Your task to perform on an android device: Play the new Justin Bieber video on YouTube Image 0: 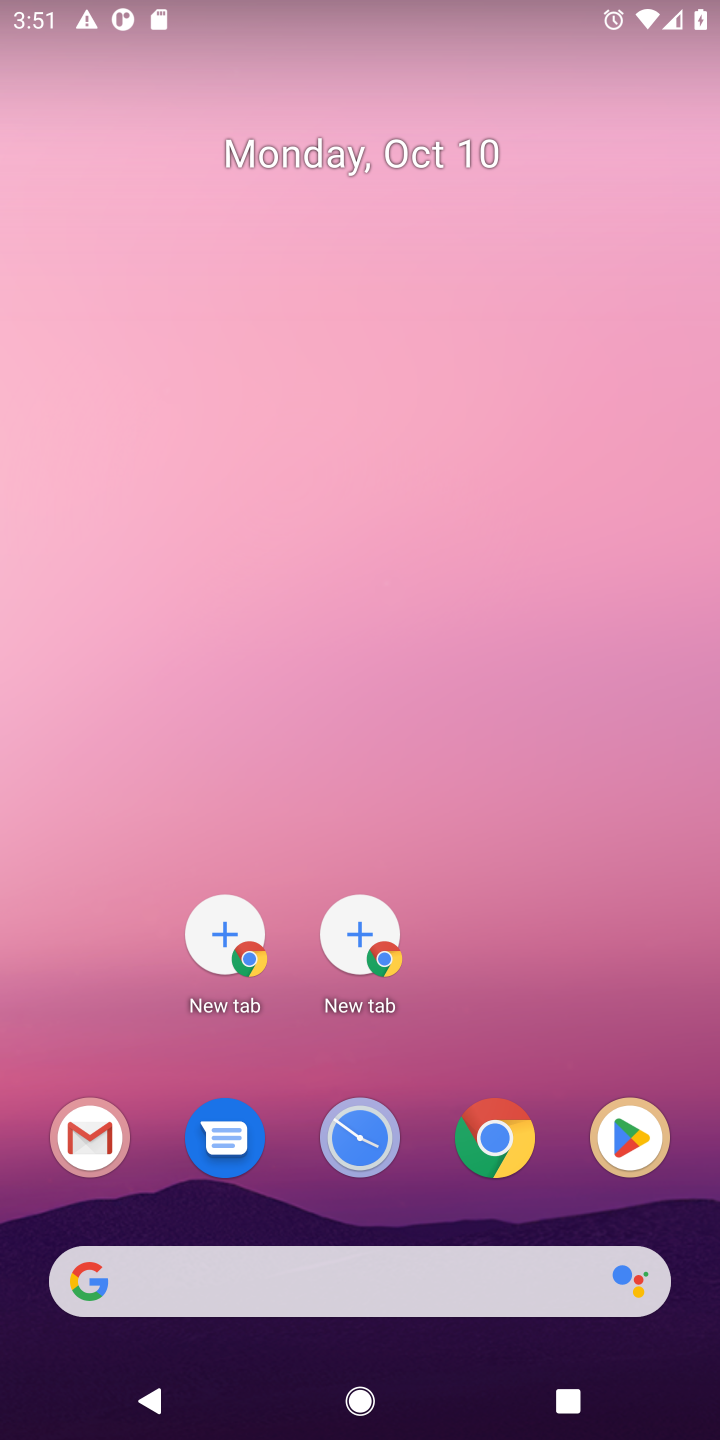
Step 0: click (510, 1162)
Your task to perform on an android device: Play the new Justin Bieber video on YouTube Image 1: 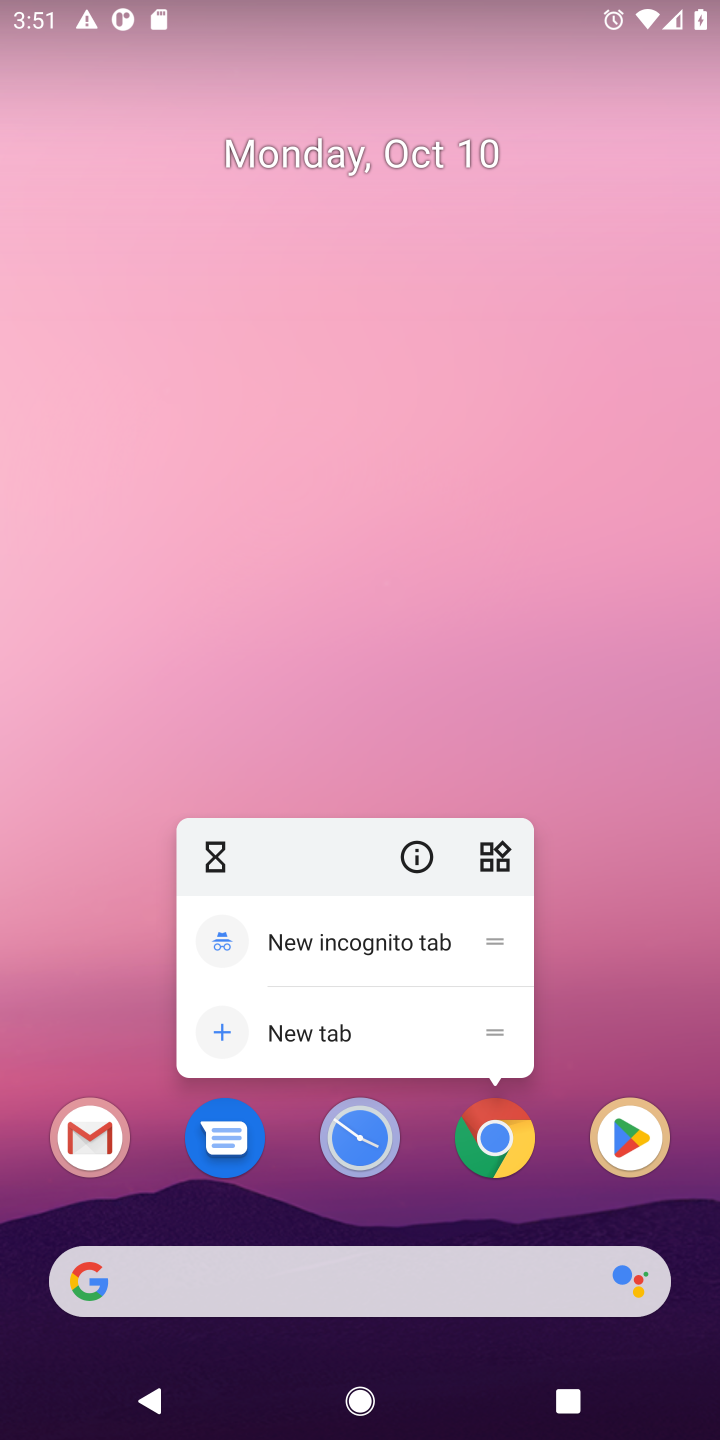
Step 1: click (500, 1115)
Your task to perform on an android device: Play the new Justin Bieber video on YouTube Image 2: 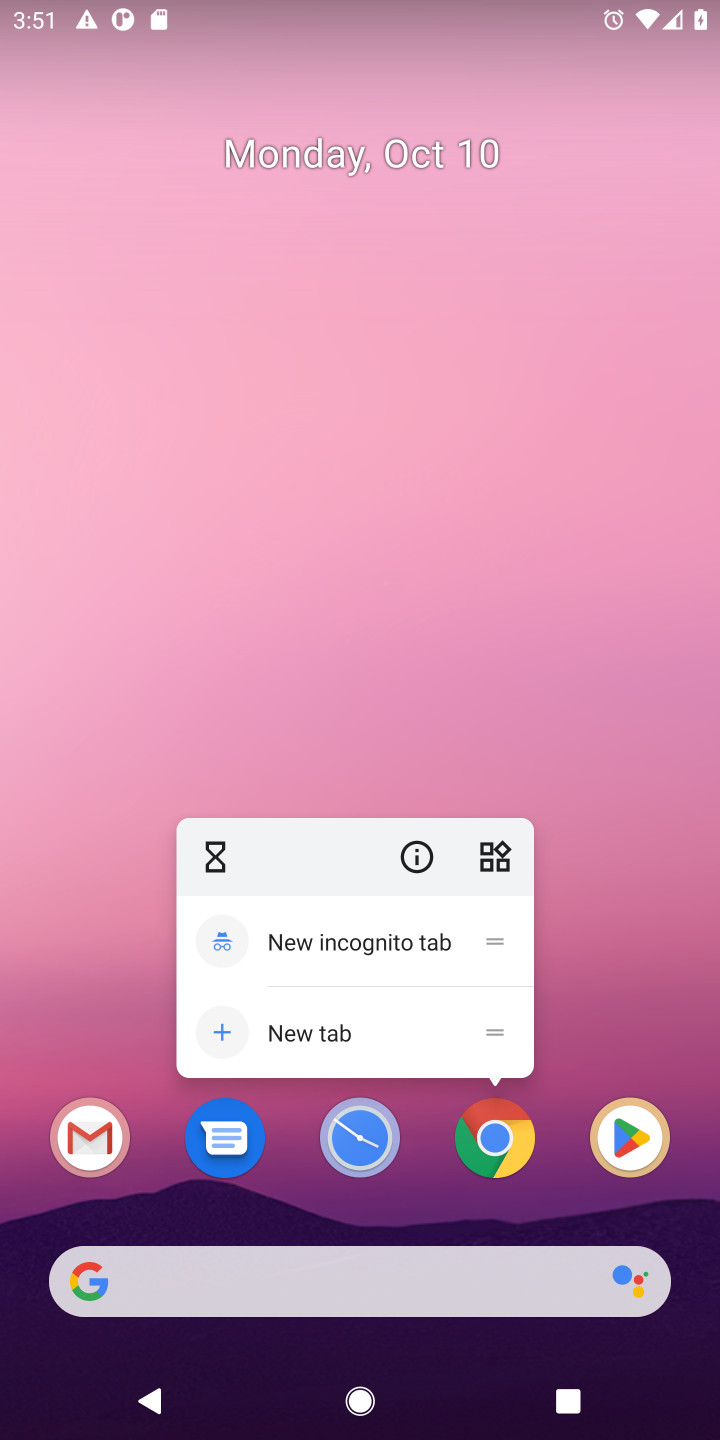
Step 2: click (492, 1154)
Your task to perform on an android device: Play the new Justin Bieber video on YouTube Image 3: 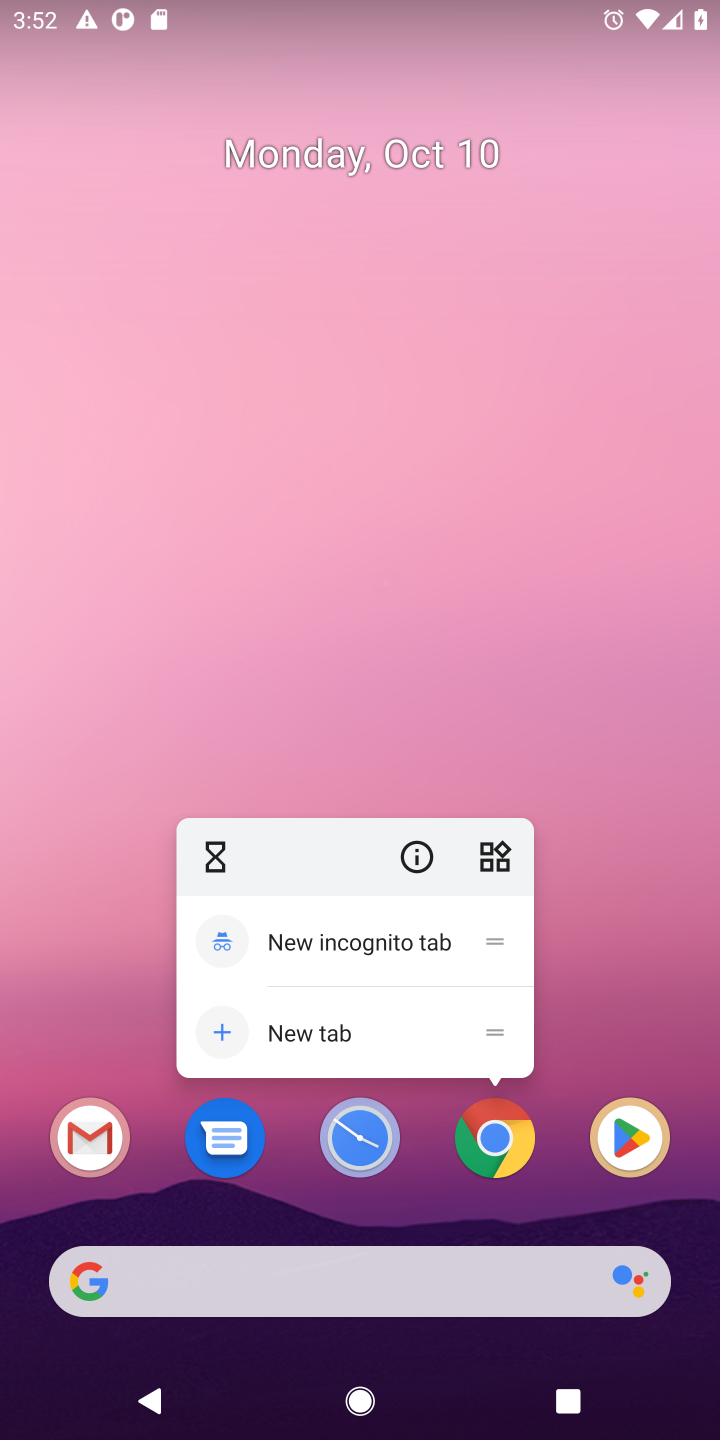
Step 3: click (499, 1166)
Your task to perform on an android device: Play the new Justin Bieber video on YouTube Image 4: 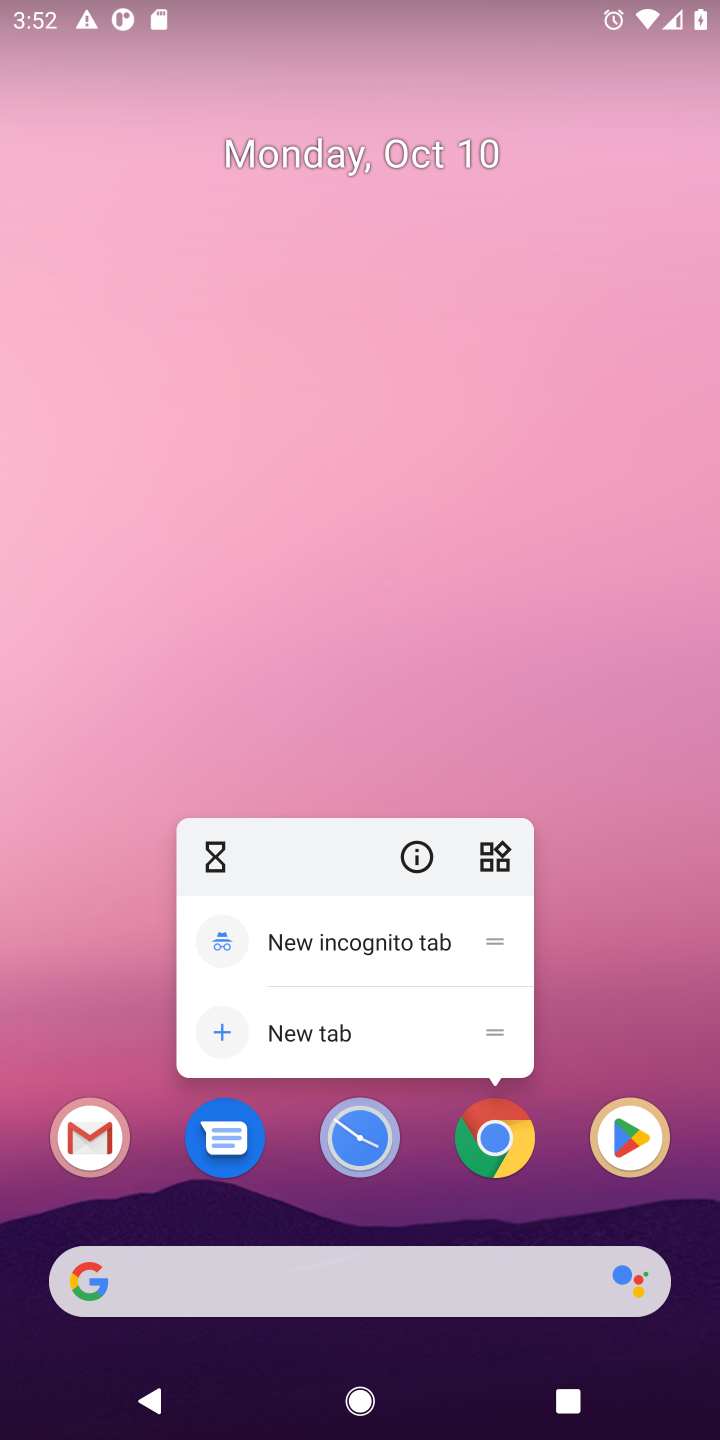
Step 4: click (505, 1163)
Your task to perform on an android device: Play the new Justin Bieber video on YouTube Image 5: 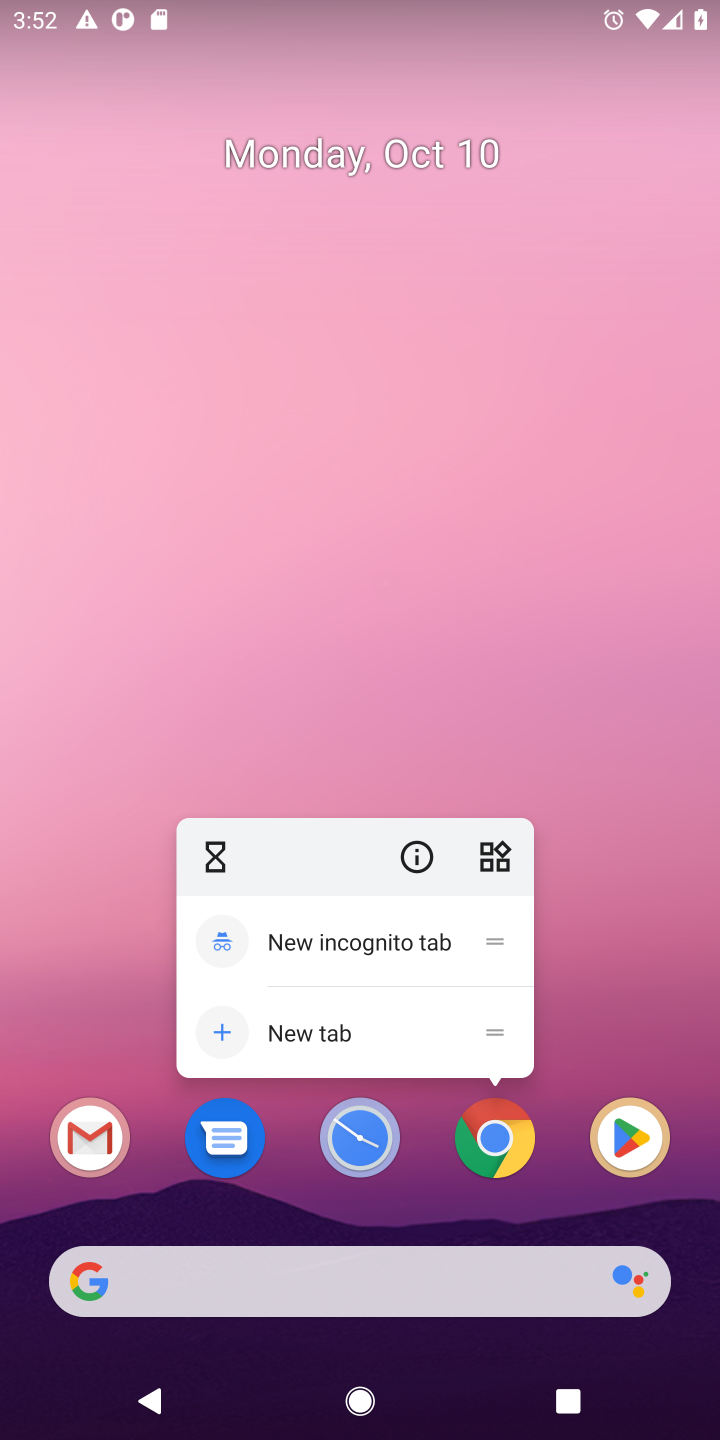
Step 5: click (505, 1163)
Your task to perform on an android device: Play the new Justin Bieber video on YouTube Image 6: 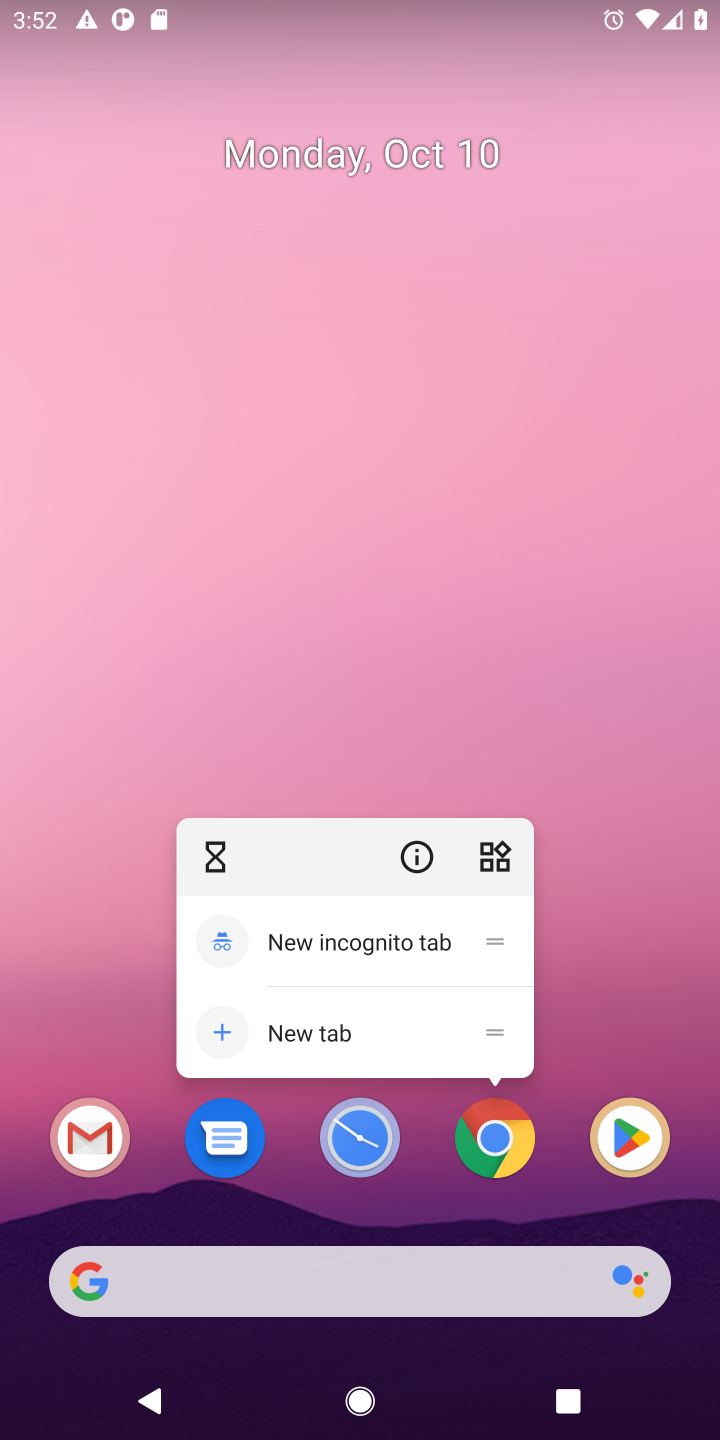
Step 6: click (488, 1139)
Your task to perform on an android device: Play the new Justin Bieber video on YouTube Image 7: 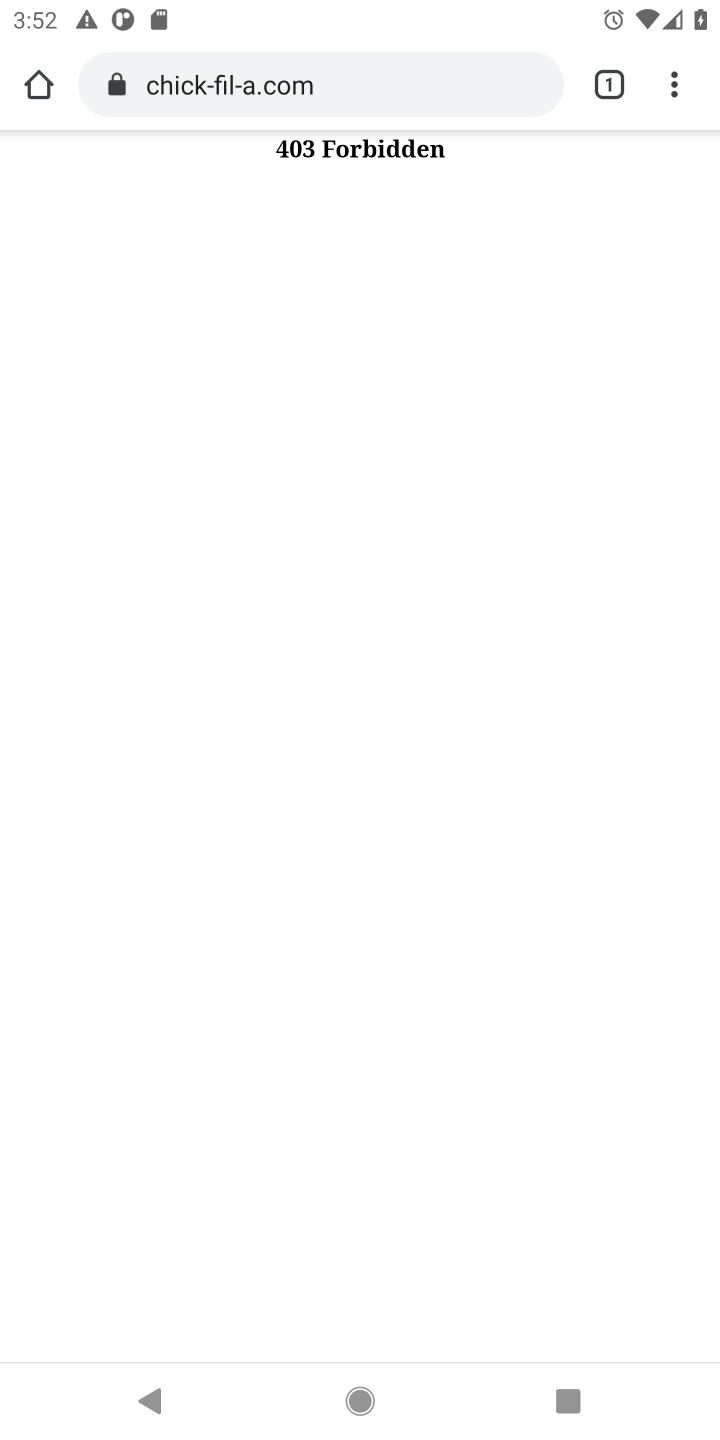
Step 7: click (398, 81)
Your task to perform on an android device: Play the new Justin Bieber video on YouTube Image 8: 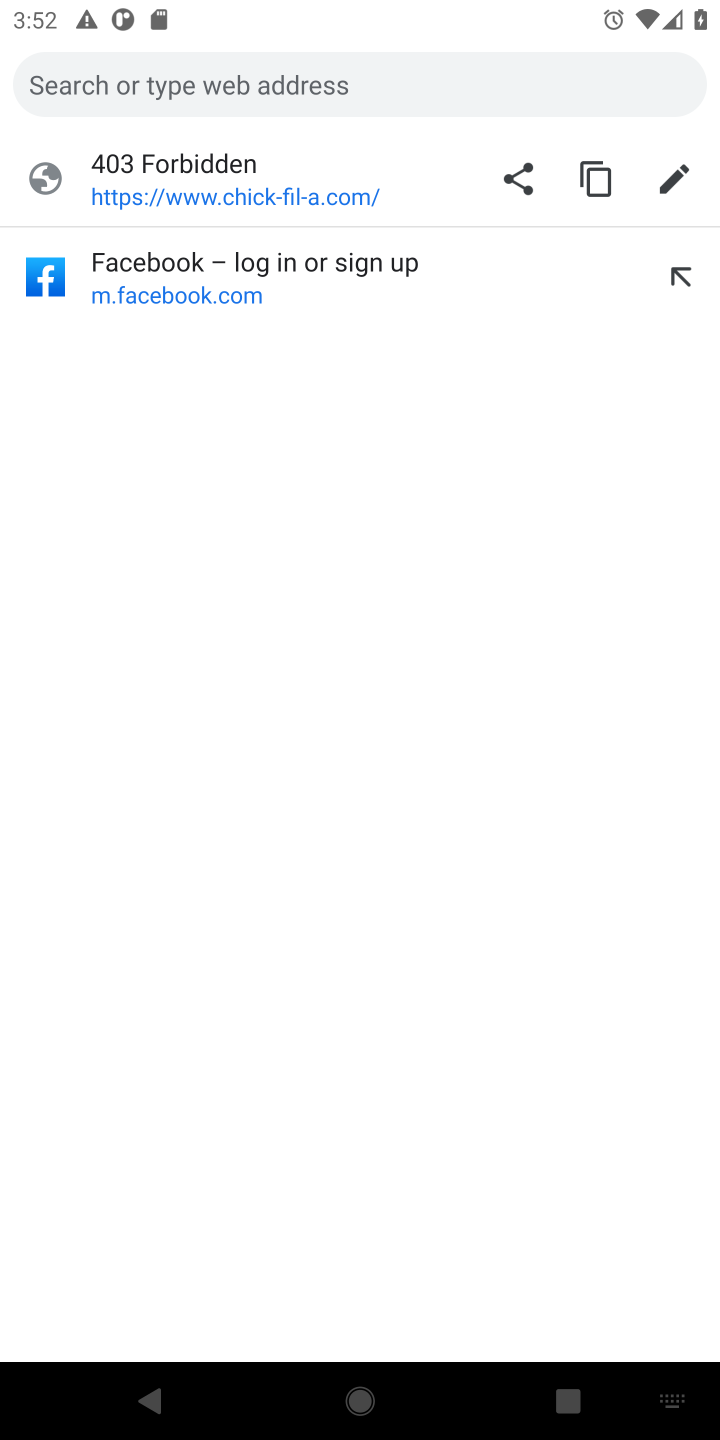
Step 8: type "youtube"
Your task to perform on an android device: Play the new Justin Bieber video on YouTube Image 9: 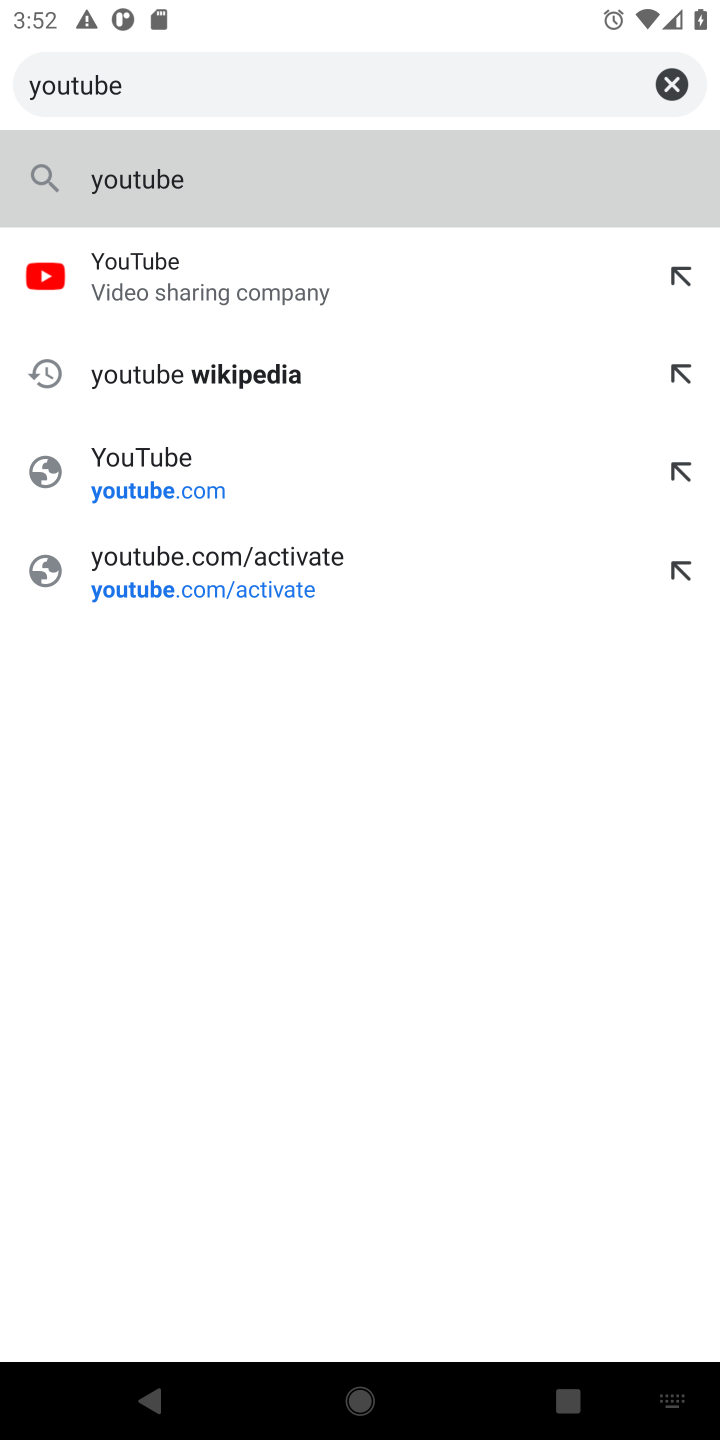
Step 9: click (218, 284)
Your task to perform on an android device: Play the new Justin Bieber video on YouTube Image 10: 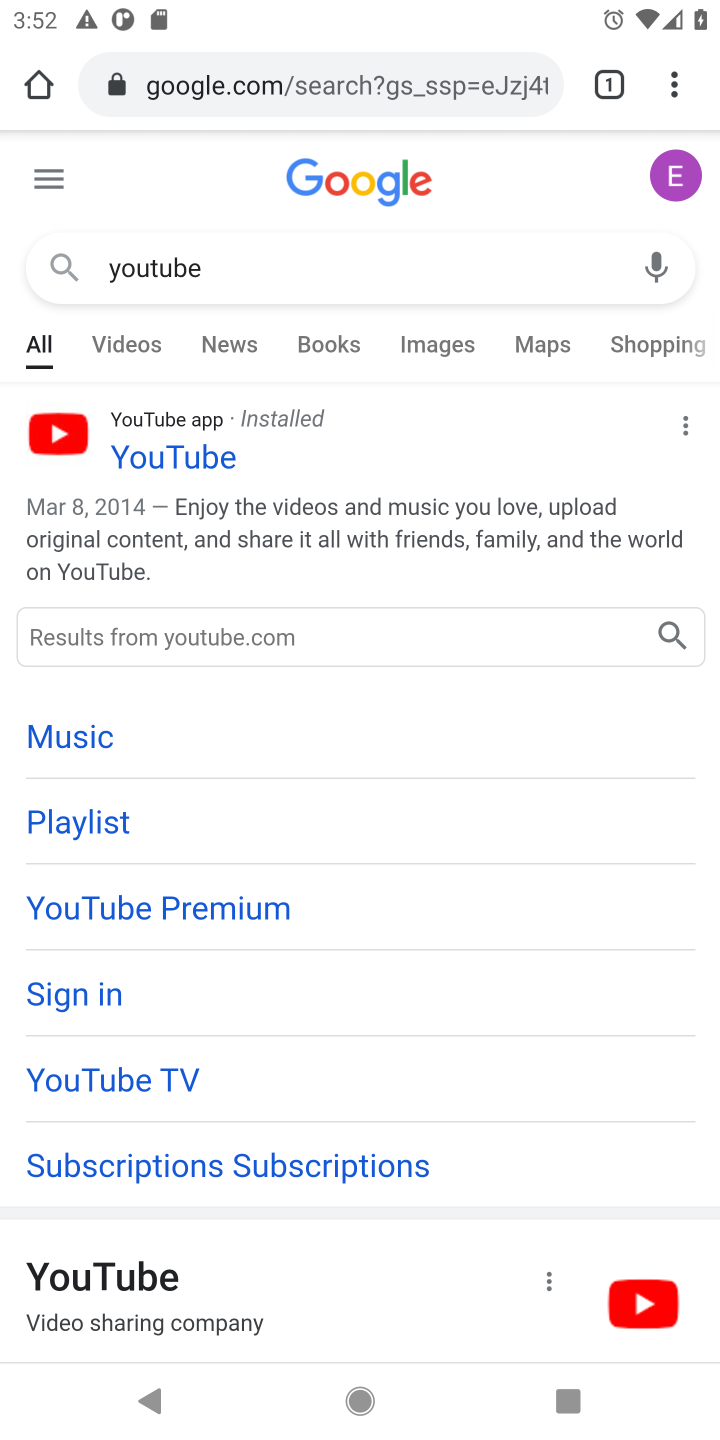
Step 10: drag from (437, 705) to (434, 469)
Your task to perform on an android device: Play the new Justin Bieber video on YouTube Image 11: 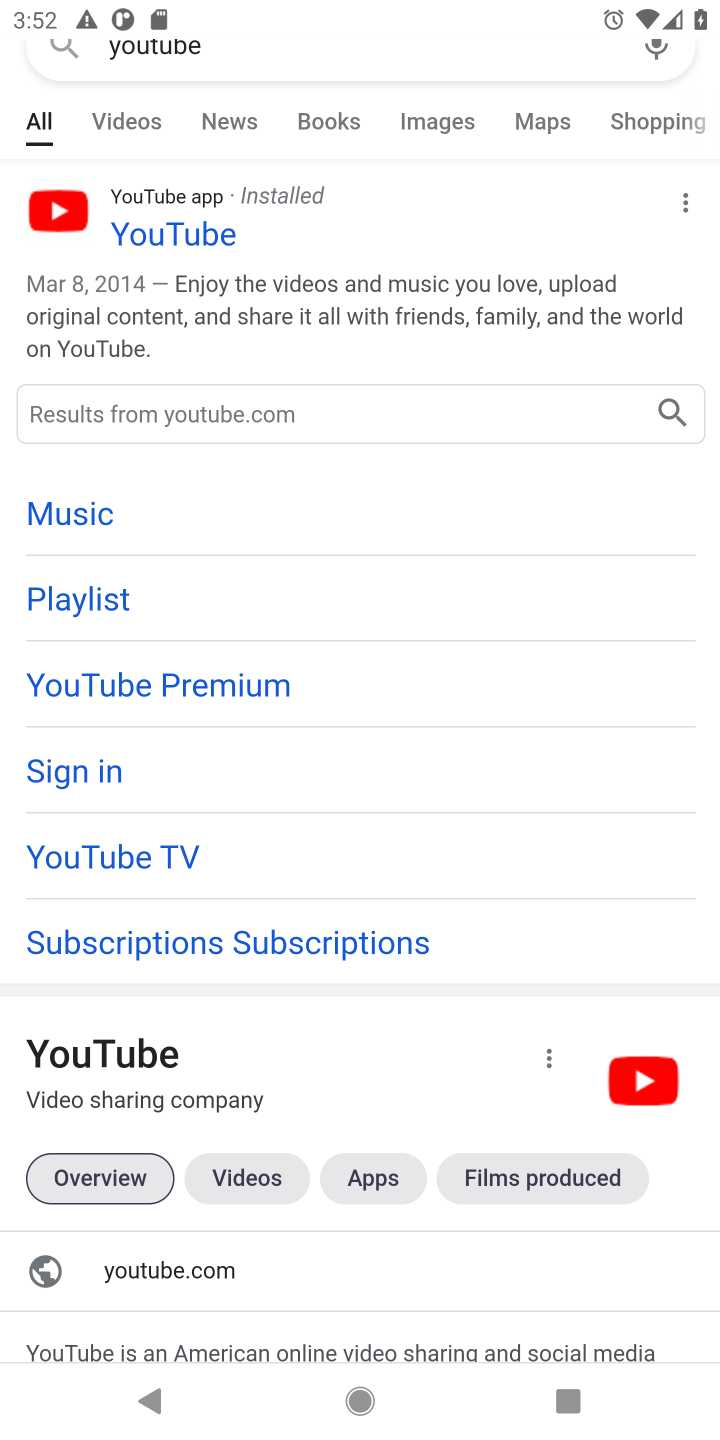
Step 11: drag from (451, 1089) to (442, 740)
Your task to perform on an android device: Play the new Justin Bieber video on YouTube Image 12: 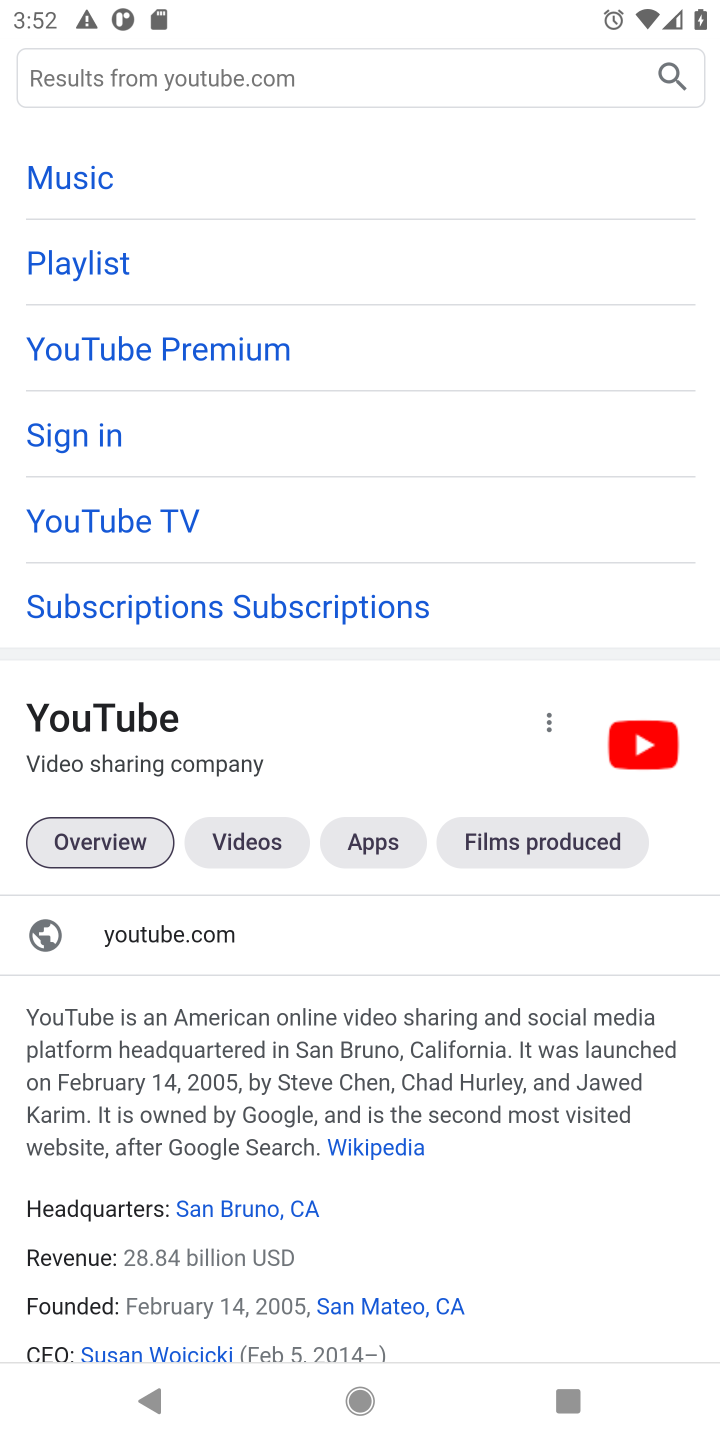
Step 12: click (199, 932)
Your task to perform on an android device: Play the new Justin Bieber video on YouTube Image 13: 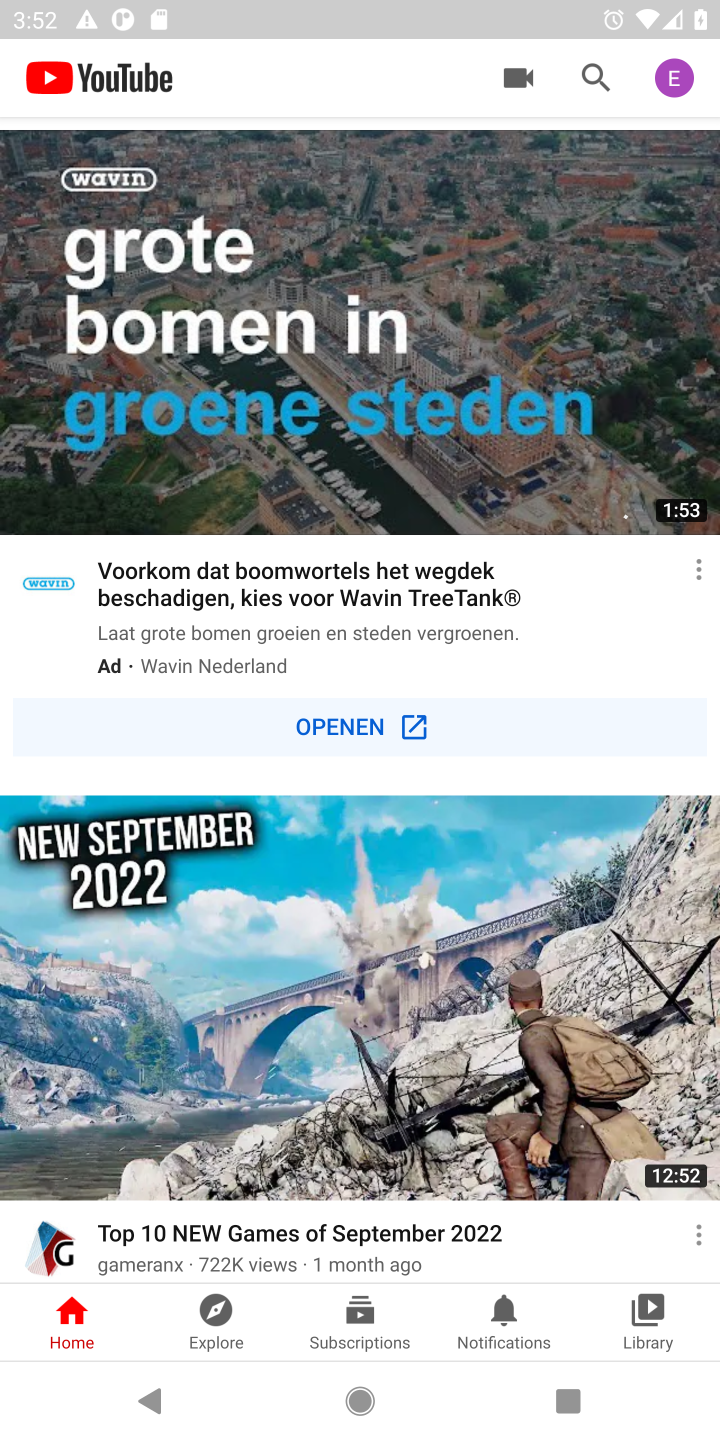
Step 13: click (593, 84)
Your task to perform on an android device: Play the new Justin Bieber video on YouTube Image 14: 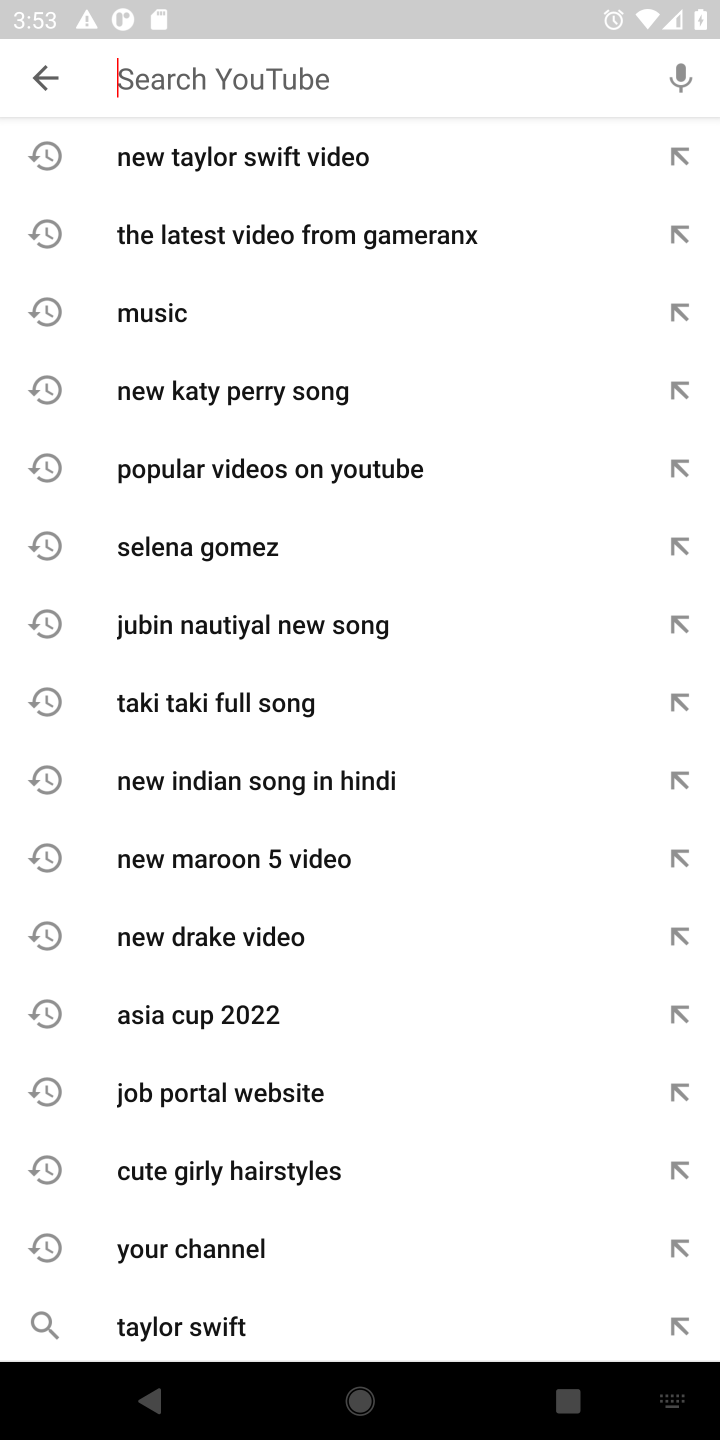
Step 14: type "justin beiber"
Your task to perform on an android device: Play the new Justin Bieber video on YouTube Image 15: 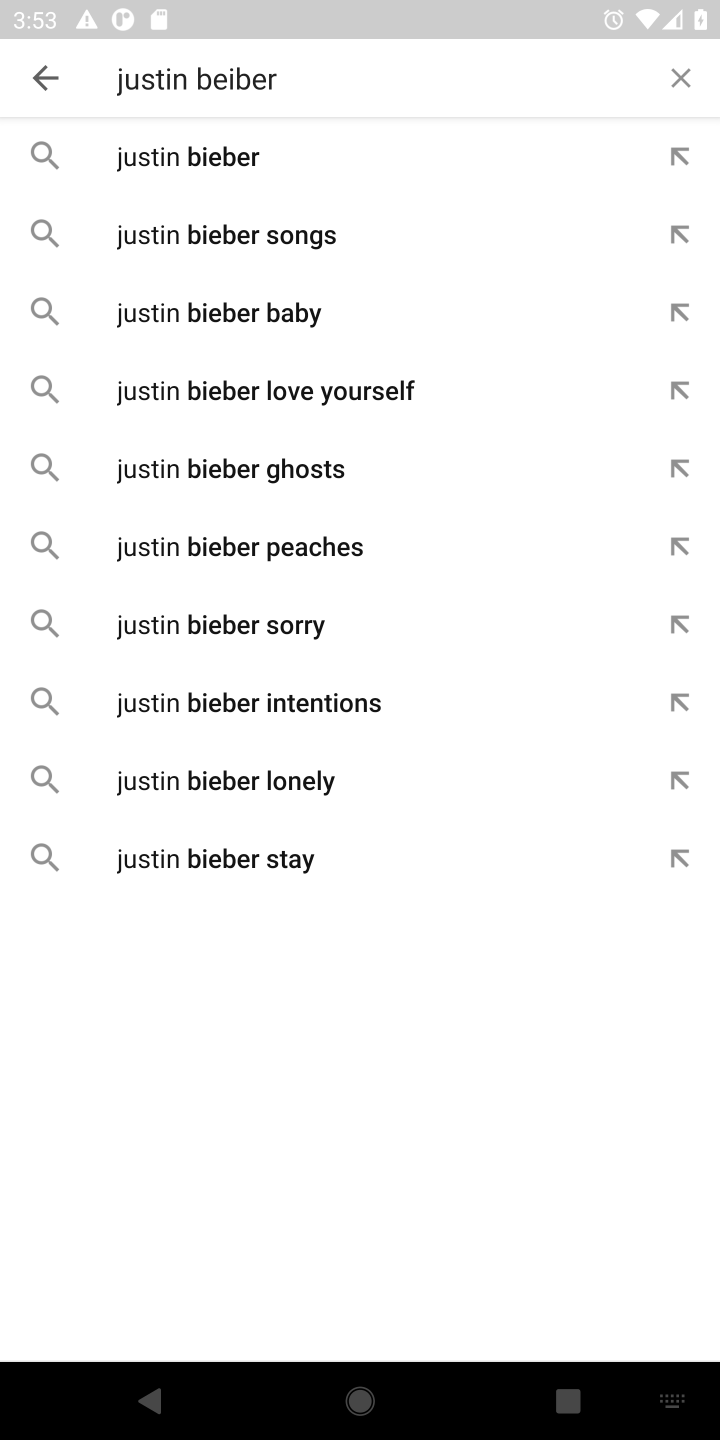
Step 15: type ""
Your task to perform on an android device: Play the new Justin Bieber video on YouTube Image 16: 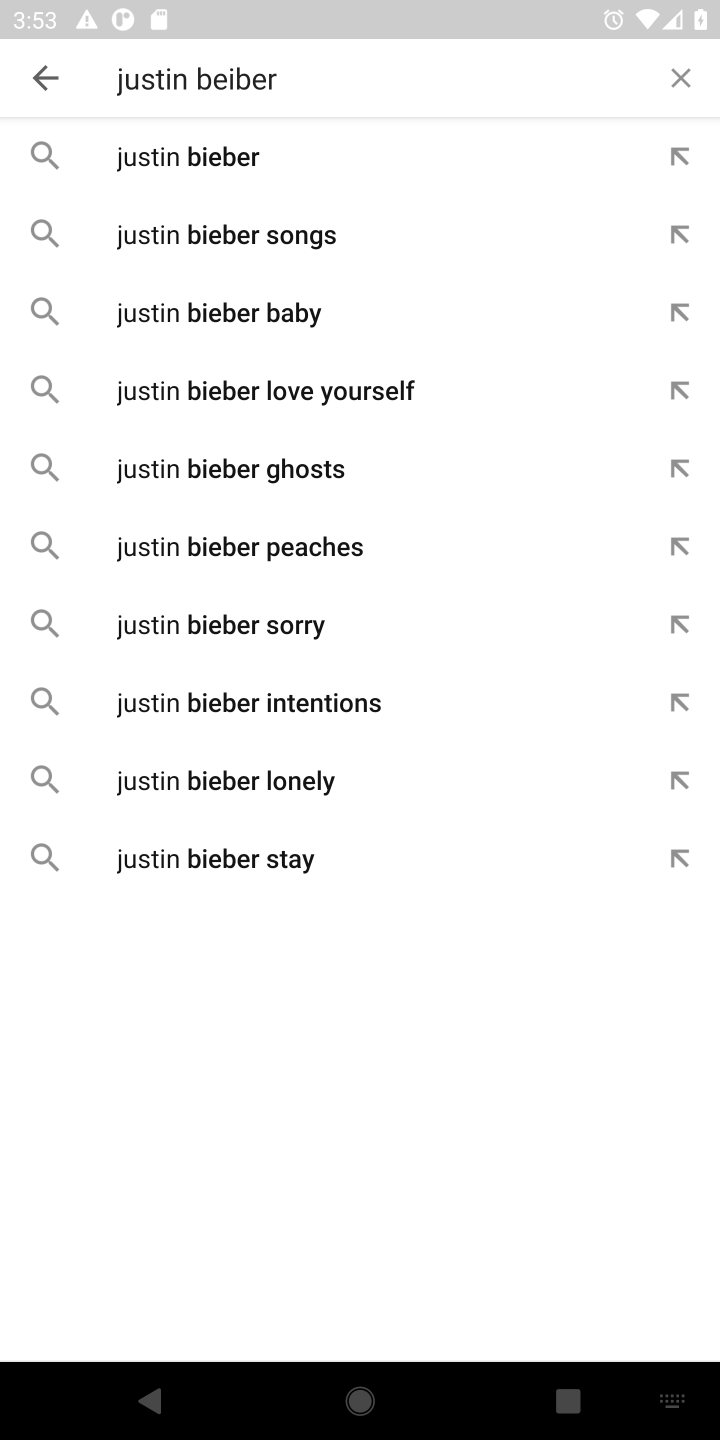
Step 16: press enter
Your task to perform on an android device: Play the new Justin Bieber video on YouTube Image 17: 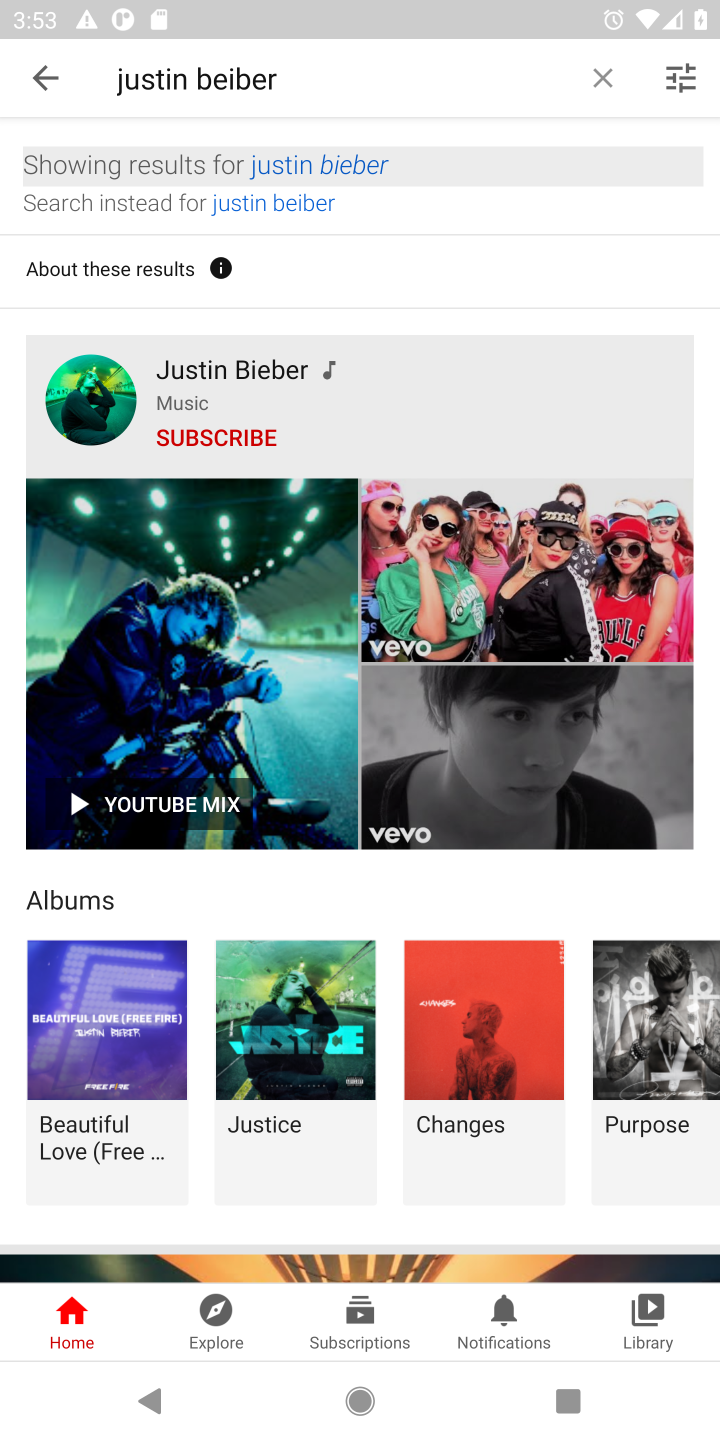
Step 17: drag from (319, 1151) to (373, 731)
Your task to perform on an android device: Play the new Justin Bieber video on YouTube Image 18: 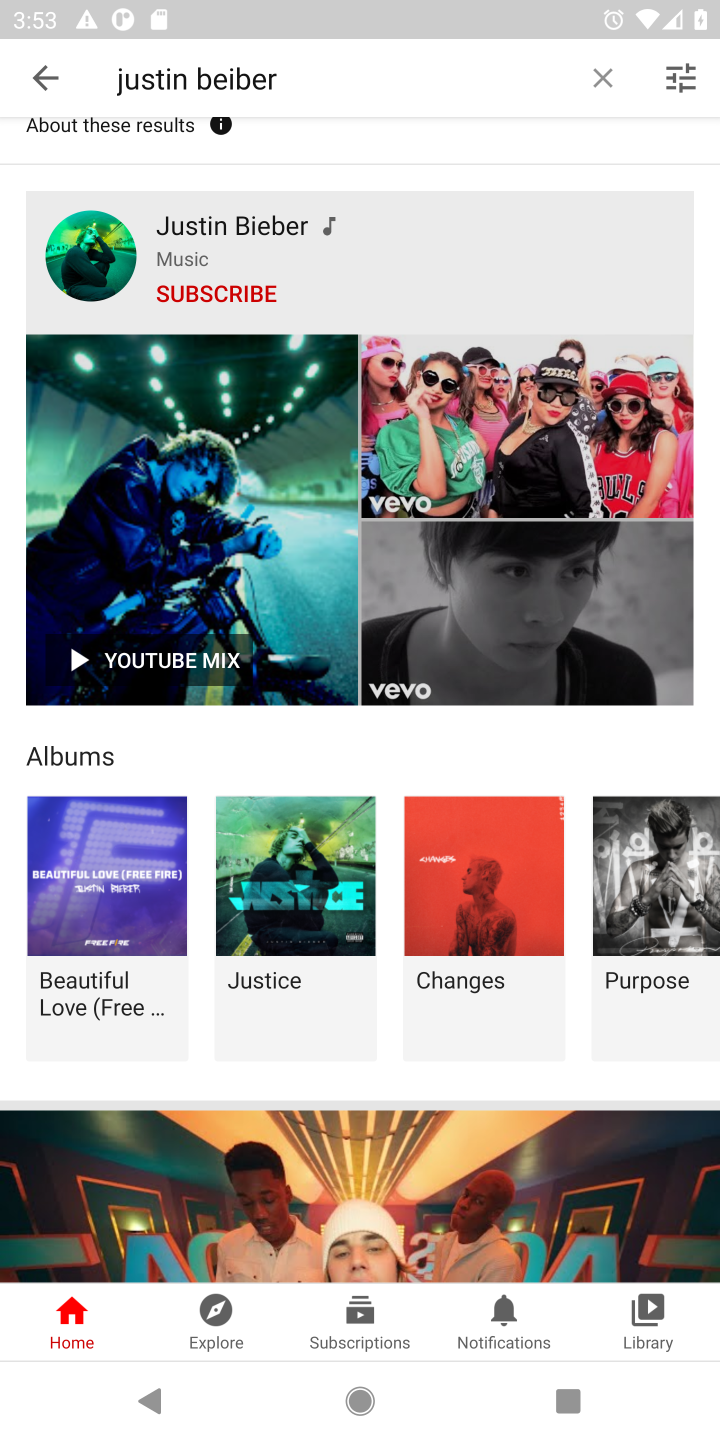
Step 18: click (249, 228)
Your task to perform on an android device: Play the new Justin Bieber video on YouTube Image 19: 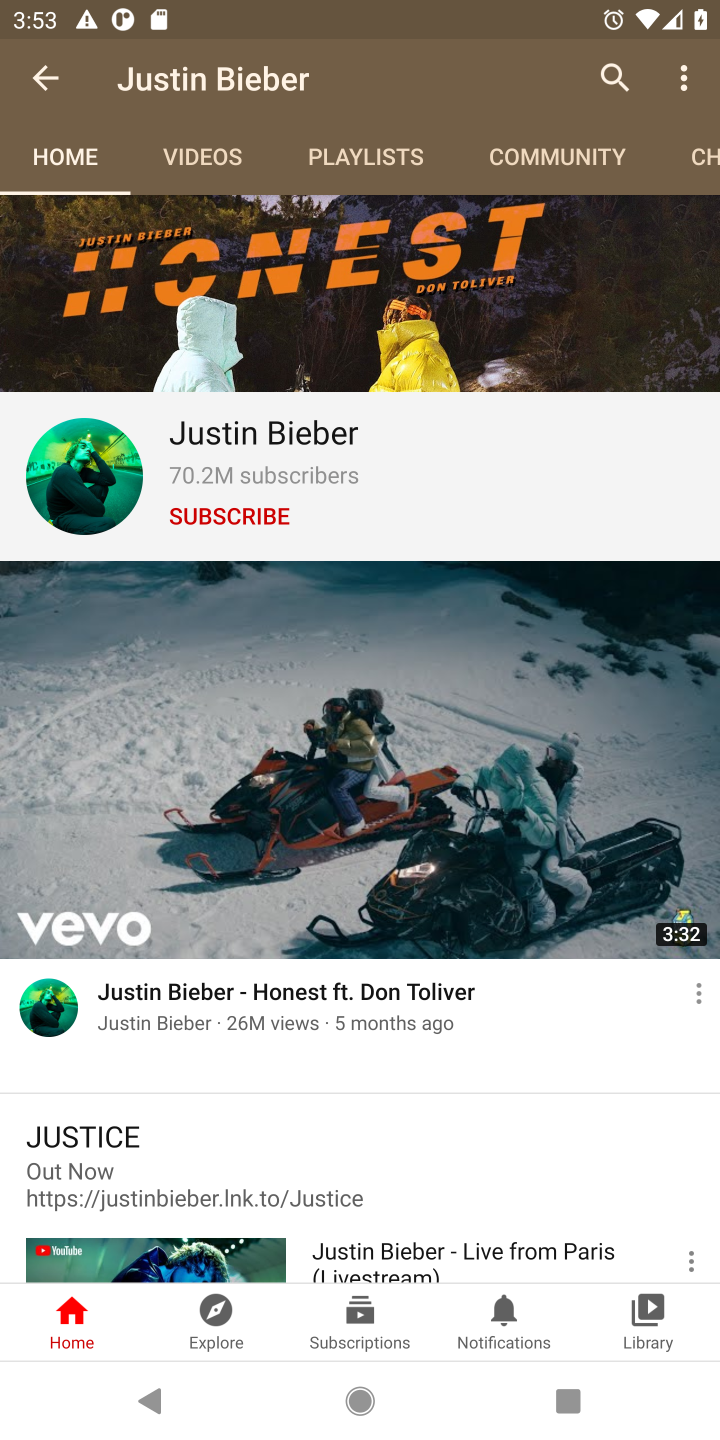
Step 19: click (213, 177)
Your task to perform on an android device: Play the new Justin Bieber video on YouTube Image 20: 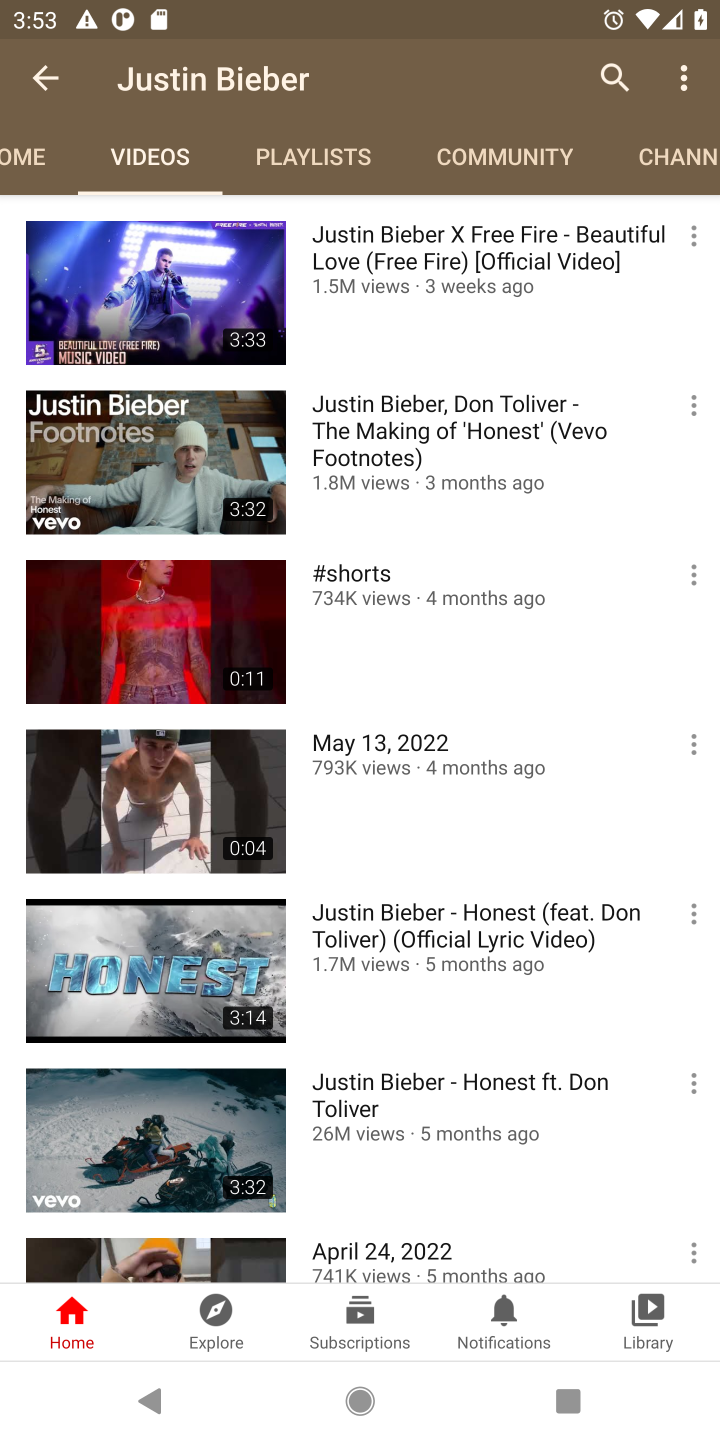
Step 20: click (155, 289)
Your task to perform on an android device: Play the new Justin Bieber video on YouTube Image 21: 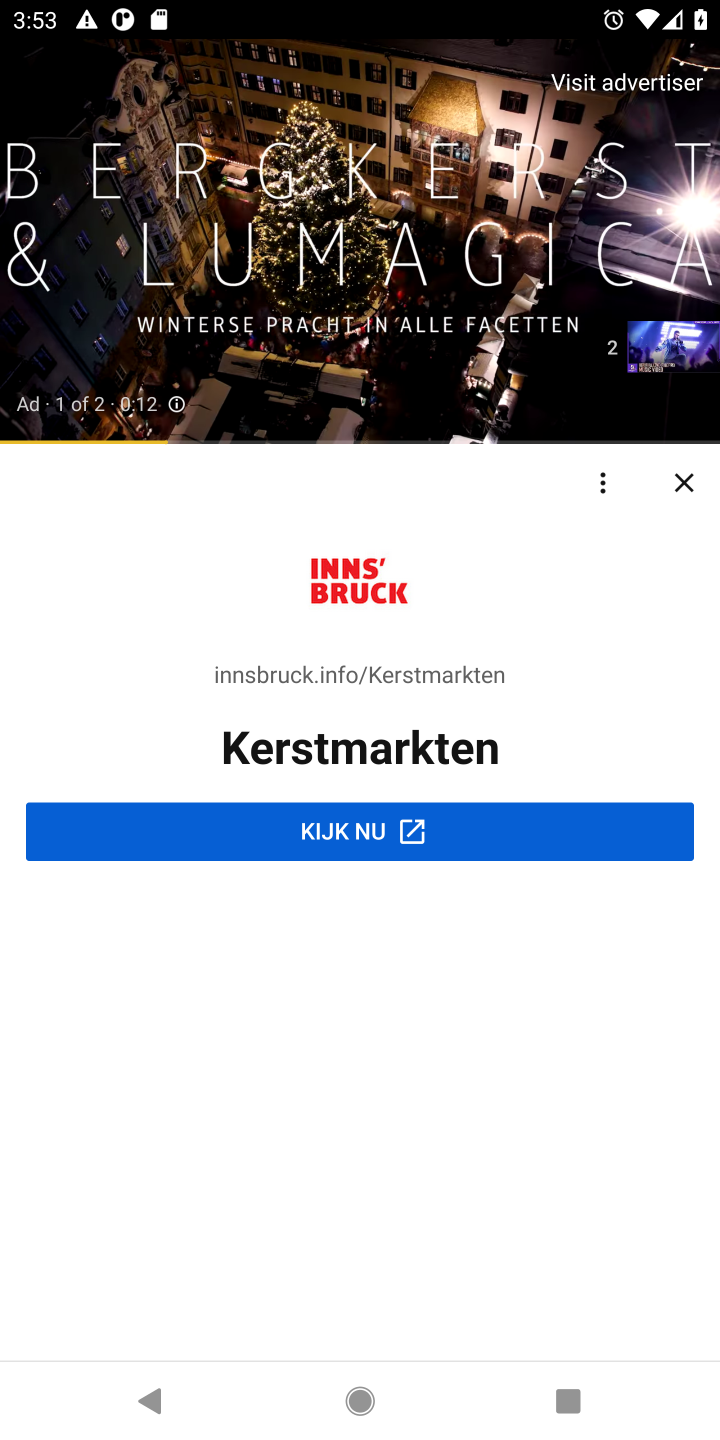
Step 21: click (685, 482)
Your task to perform on an android device: Play the new Justin Bieber video on YouTube Image 22: 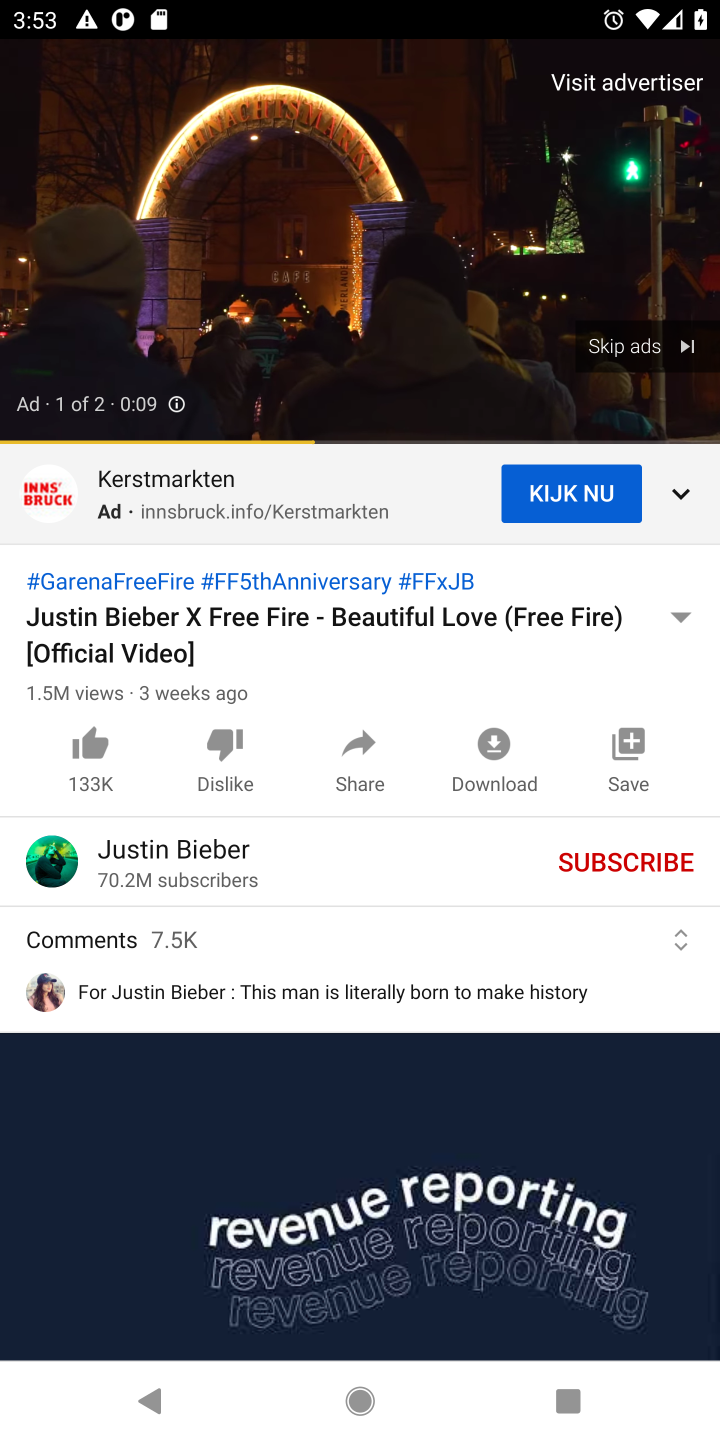
Step 22: click (677, 347)
Your task to perform on an android device: Play the new Justin Bieber video on YouTube Image 23: 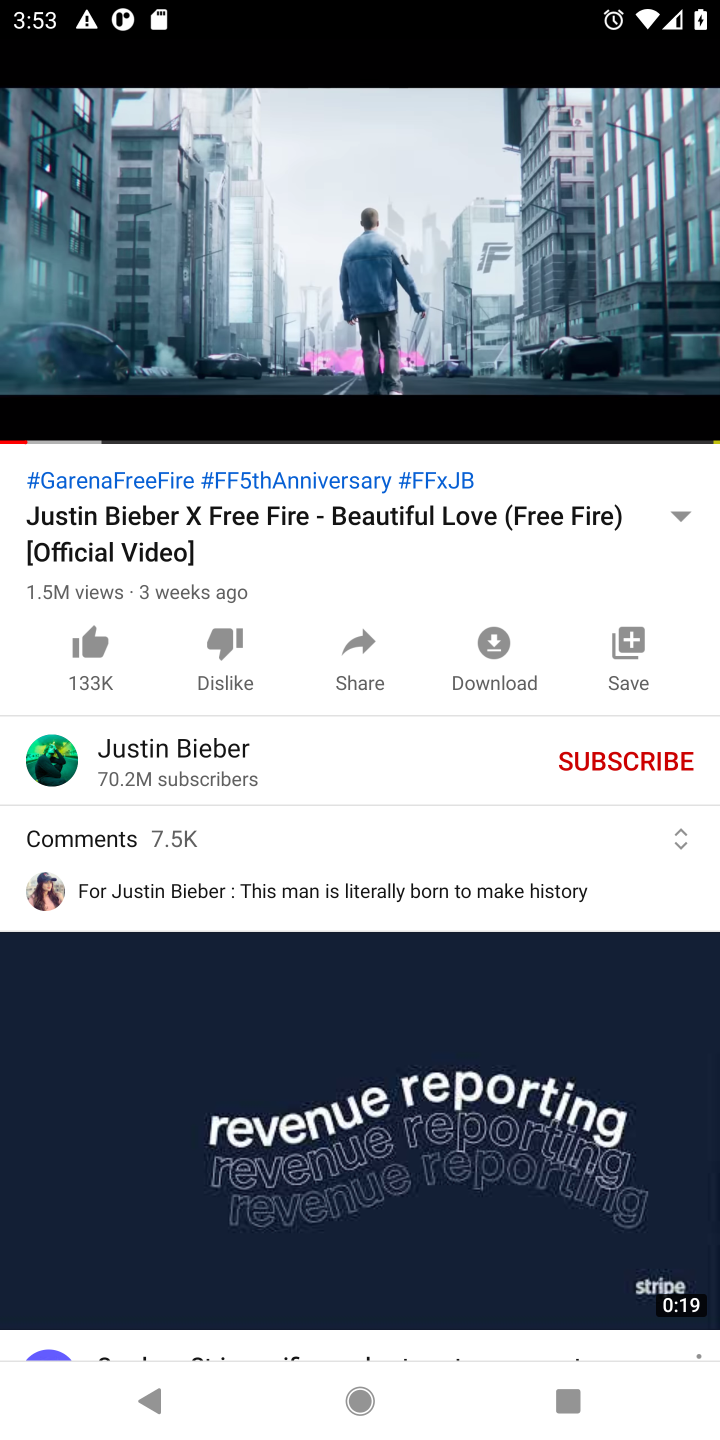
Step 23: task complete